Your task to perform on an android device: Do I have any events today? Image 0: 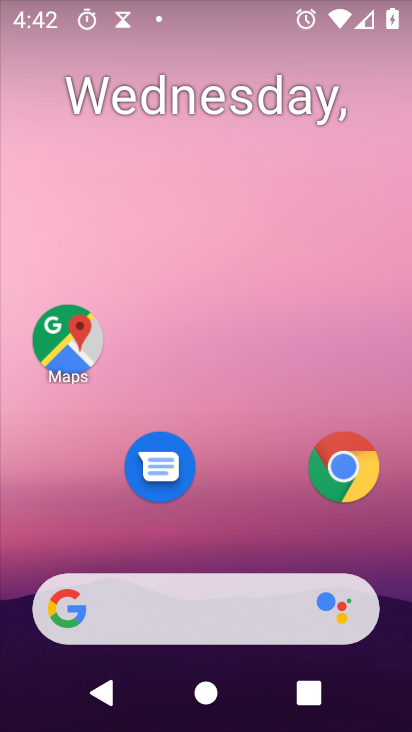
Step 0: drag from (272, 528) to (278, 81)
Your task to perform on an android device: Do I have any events today? Image 1: 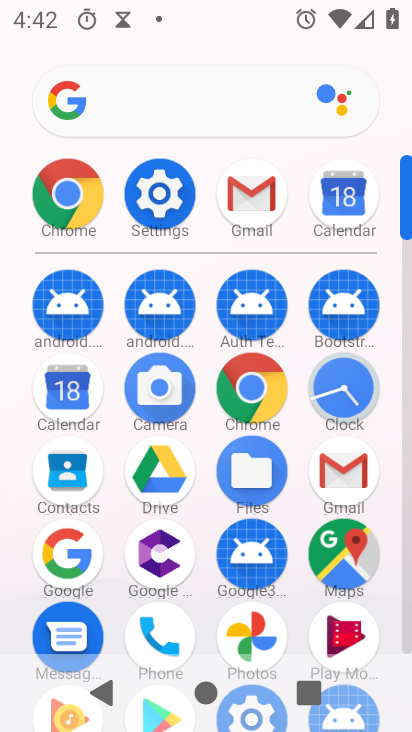
Step 1: click (355, 189)
Your task to perform on an android device: Do I have any events today? Image 2: 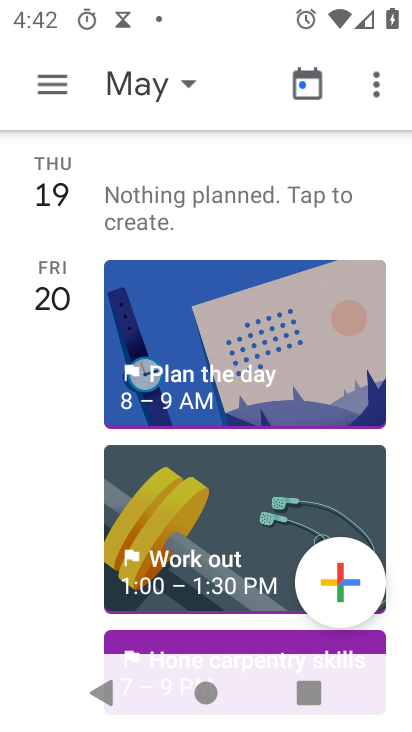
Step 2: click (188, 88)
Your task to perform on an android device: Do I have any events today? Image 3: 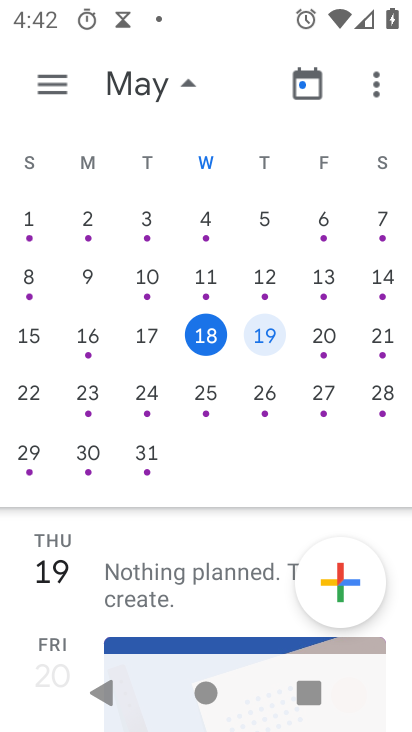
Step 3: click (203, 322)
Your task to perform on an android device: Do I have any events today? Image 4: 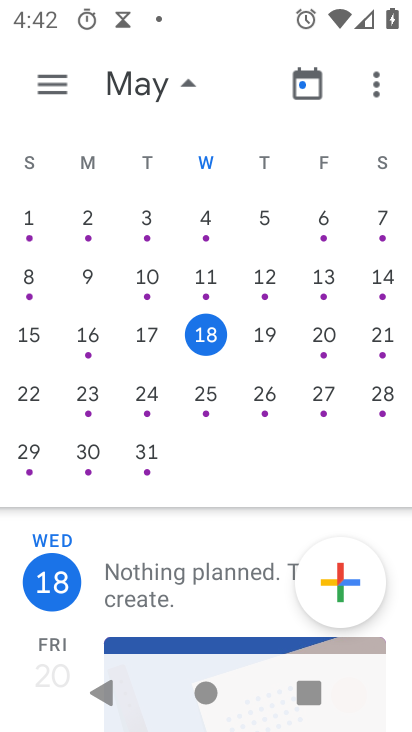
Step 4: click (157, 98)
Your task to perform on an android device: Do I have any events today? Image 5: 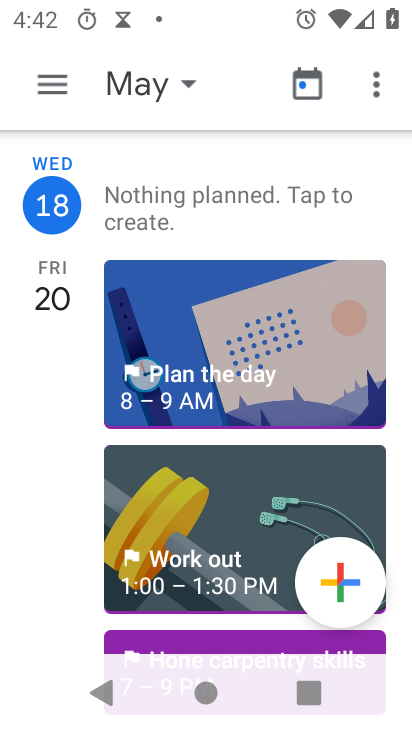
Step 5: task complete